Your task to perform on an android device: Set the phone to "Do not disturb". Image 0: 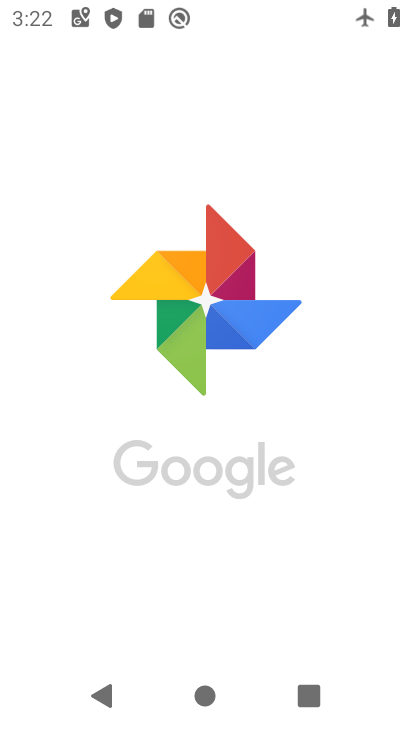
Step 0: drag from (279, 467) to (296, 189)
Your task to perform on an android device: Set the phone to "Do not disturb". Image 1: 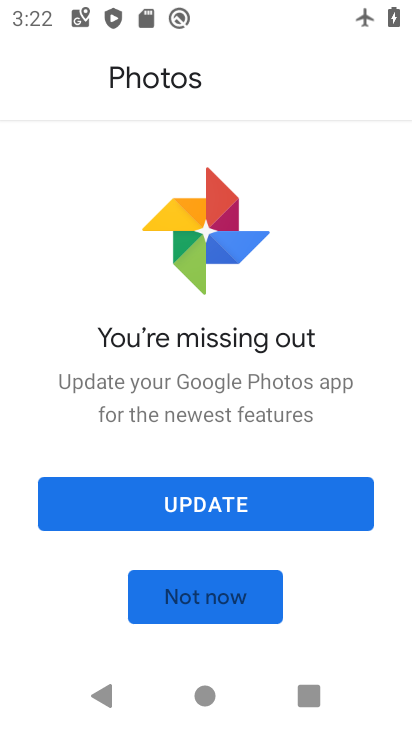
Step 1: press home button
Your task to perform on an android device: Set the phone to "Do not disturb". Image 2: 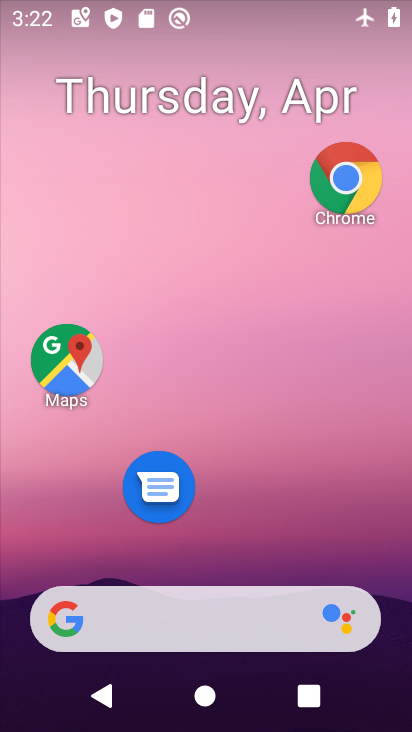
Step 2: drag from (308, 26) to (235, 530)
Your task to perform on an android device: Set the phone to "Do not disturb". Image 3: 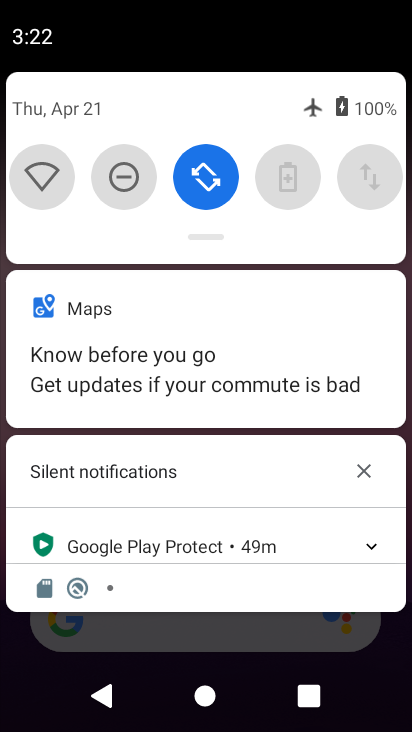
Step 3: click (127, 167)
Your task to perform on an android device: Set the phone to "Do not disturb". Image 4: 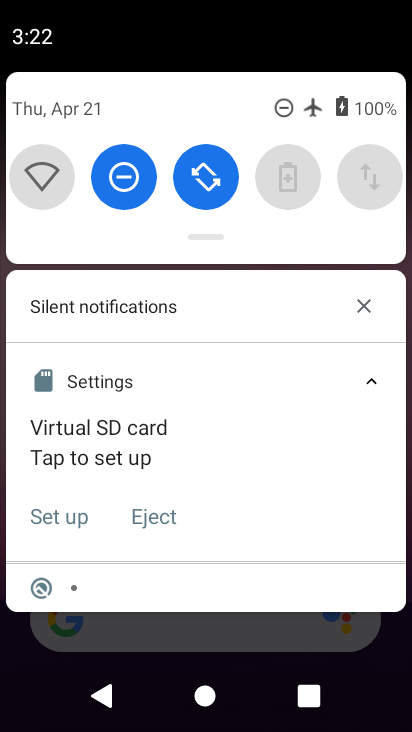
Step 4: task complete